Your task to perform on an android device: Show me productivity apps on the Play Store Image 0: 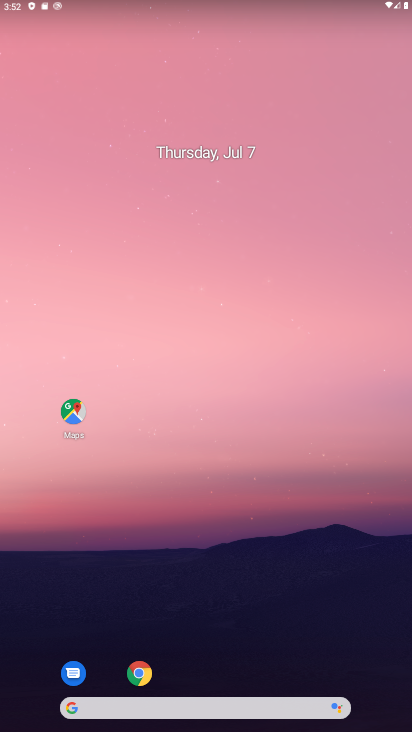
Step 0: drag from (239, 685) to (266, 81)
Your task to perform on an android device: Show me productivity apps on the Play Store Image 1: 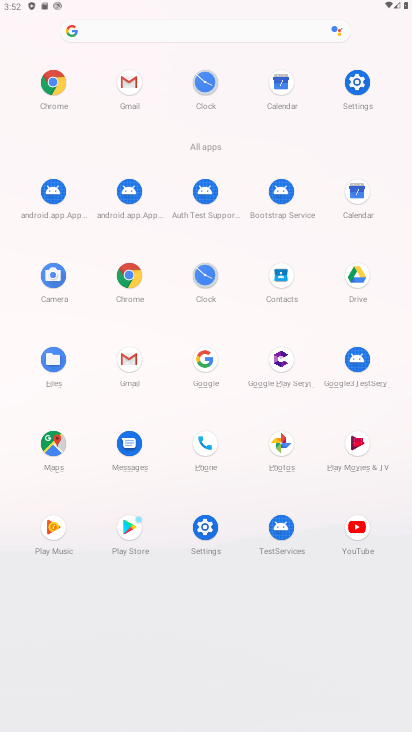
Step 1: click (132, 521)
Your task to perform on an android device: Show me productivity apps on the Play Store Image 2: 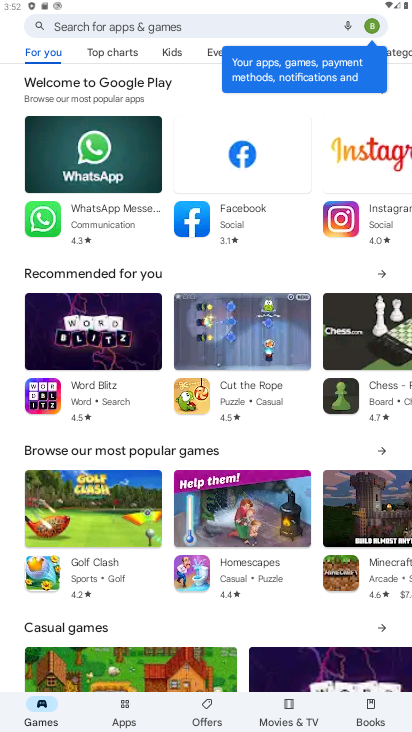
Step 2: click (122, 704)
Your task to perform on an android device: Show me productivity apps on the Play Store Image 3: 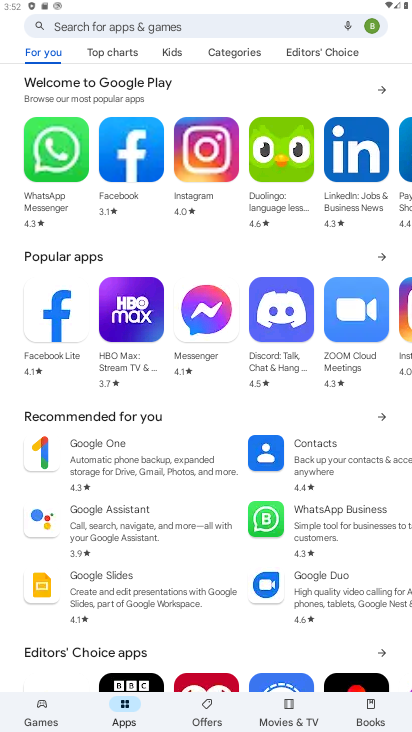
Step 3: click (237, 54)
Your task to perform on an android device: Show me productivity apps on the Play Store Image 4: 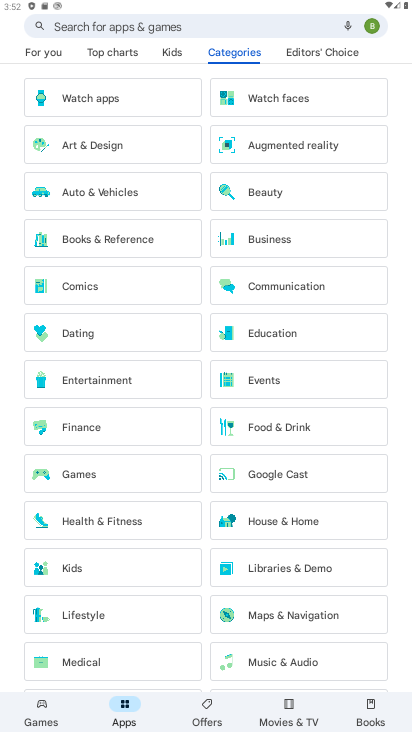
Step 4: drag from (208, 637) to (216, 330)
Your task to perform on an android device: Show me productivity apps on the Play Store Image 5: 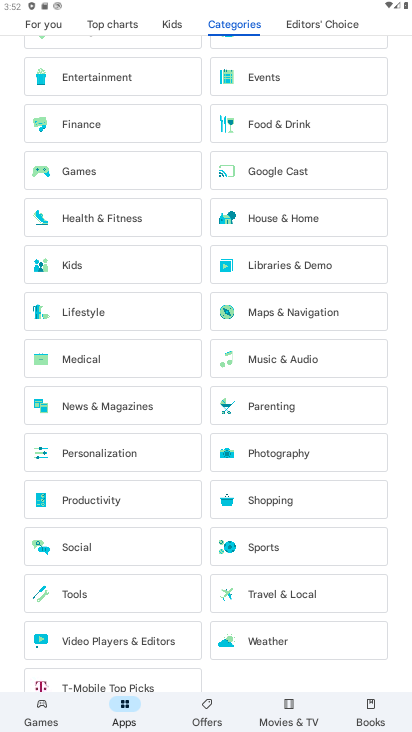
Step 5: click (86, 500)
Your task to perform on an android device: Show me productivity apps on the Play Store Image 6: 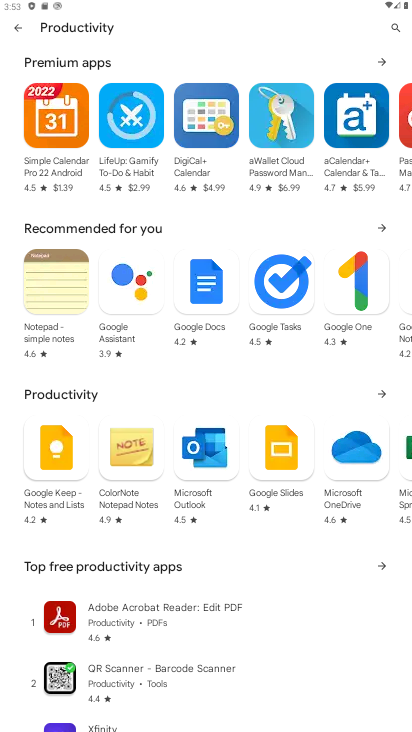
Step 6: task complete